Your task to perform on an android device: Toggle the flashlight Image 0: 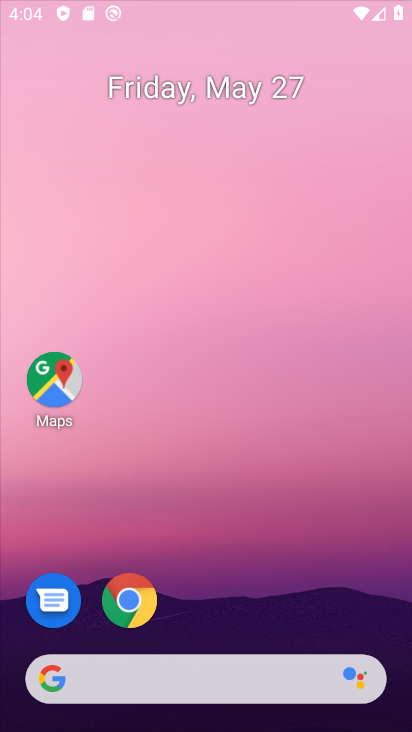
Step 0: drag from (224, 713) to (321, 111)
Your task to perform on an android device: Toggle the flashlight Image 1: 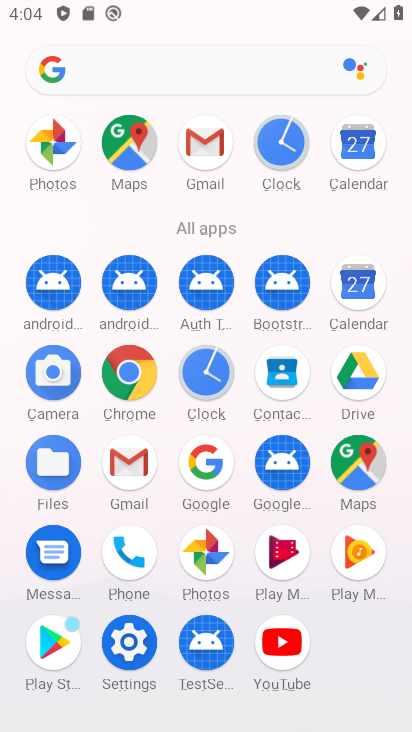
Step 1: click (129, 641)
Your task to perform on an android device: Toggle the flashlight Image 2: 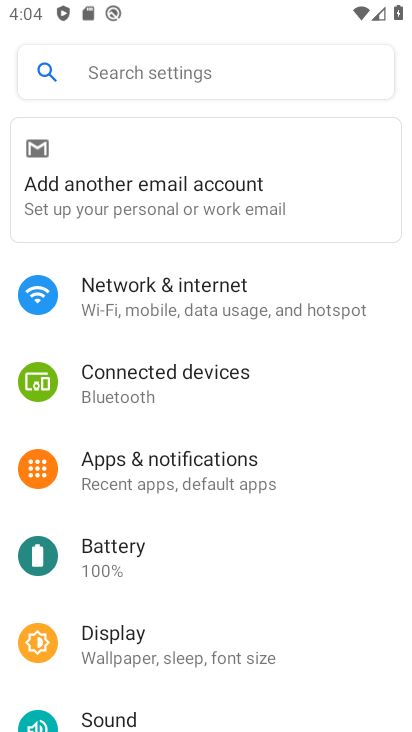
Step 2: click (145, 81)
Your task to perform on an android device: Toggle the flashlight Image 3: 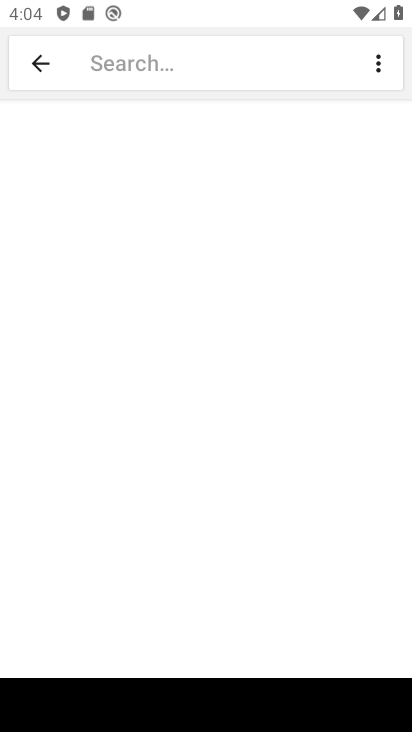
Step 3: drag from (384, 686) to (374, 564)
Your task to perform on an android device: Toggle the flashlight Image 4: 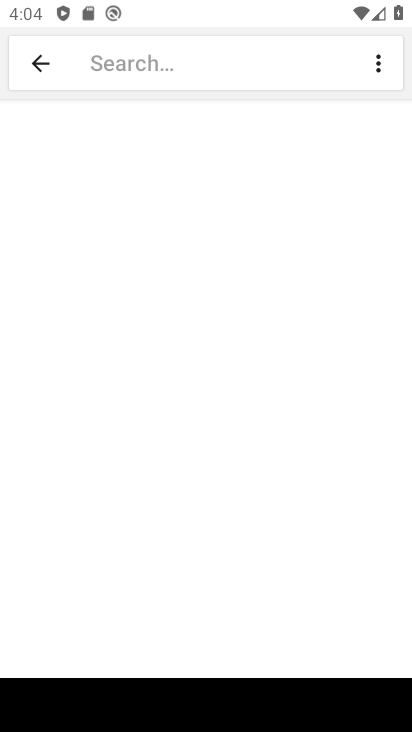
Step 4: drag from (390, 707) to (378, 606)
Your task to perform on an android device: Toggle the flashlight Image 5: 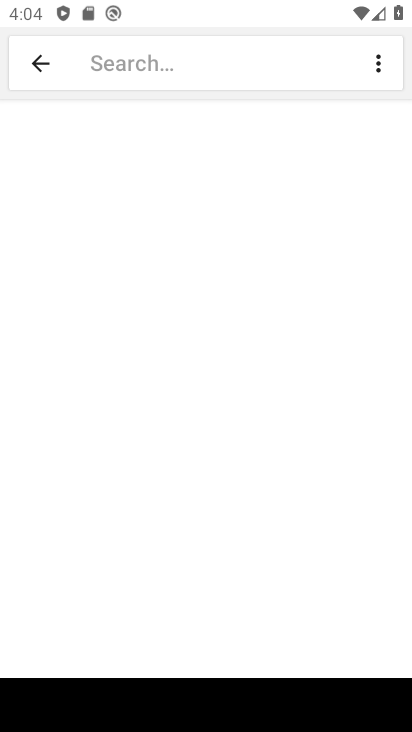
Step 5: drag from (382, 704) to (370, 664)
Your task to perform on an android device: Toggle the flashlight Image 6: 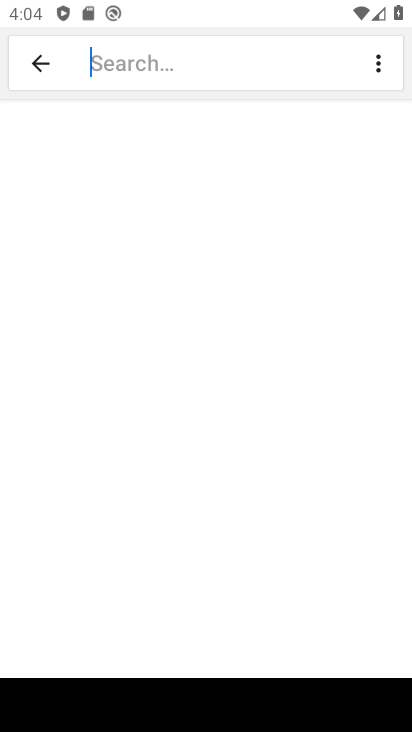
Step 6: click (385, 706)
Your task to perform on an android device: Toggle the flashlight Image 7: 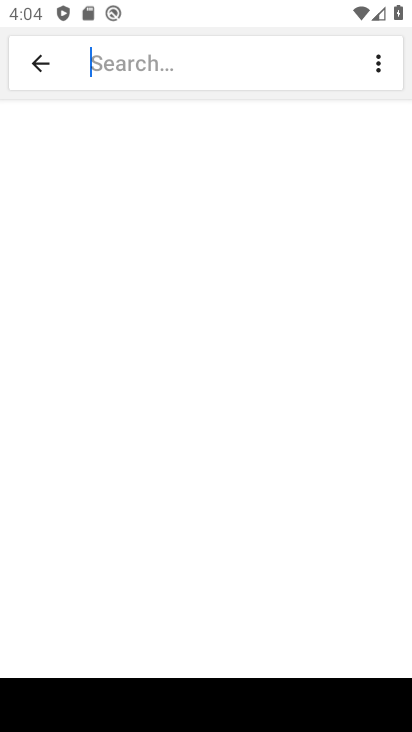
Step 7: click (131, 61)
Your task to perform on an android device: Toggle the flashlight Image 8: 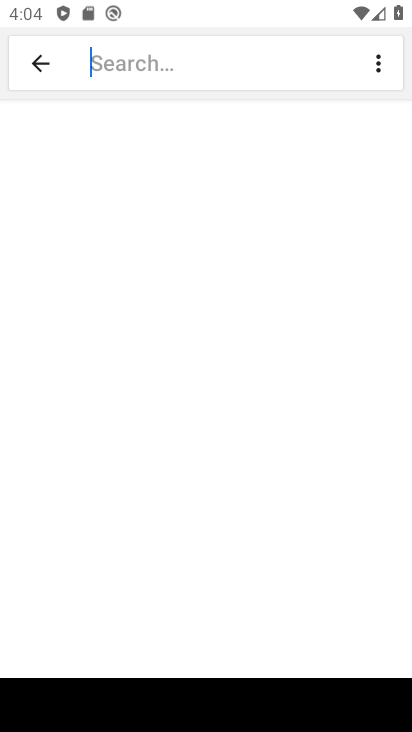
Step 8: click (123, 64)
Your task to perform on an android device: Toggle the flashlight Image 9: 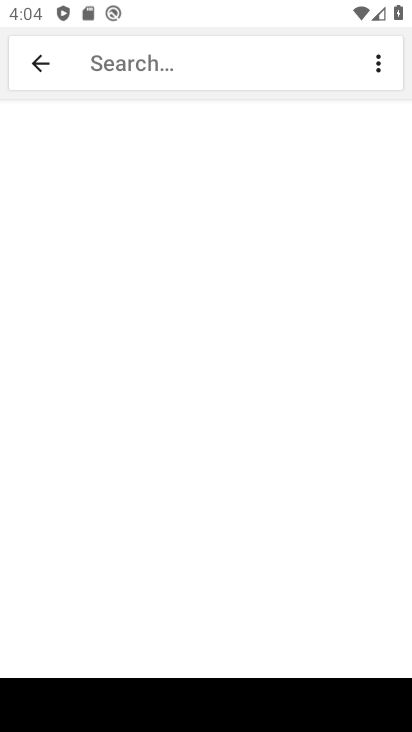
Step 9: click (123, 64)
Your task to perform on an android device: Toggle the flashlight Image 10: 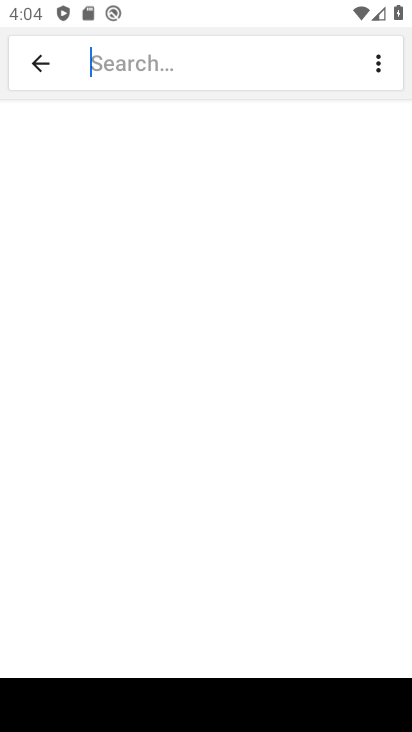
Step 10: drag from (391, 711) to (363, 599)
Your task to perform on an android device: Toggle the flashlight Image 11: 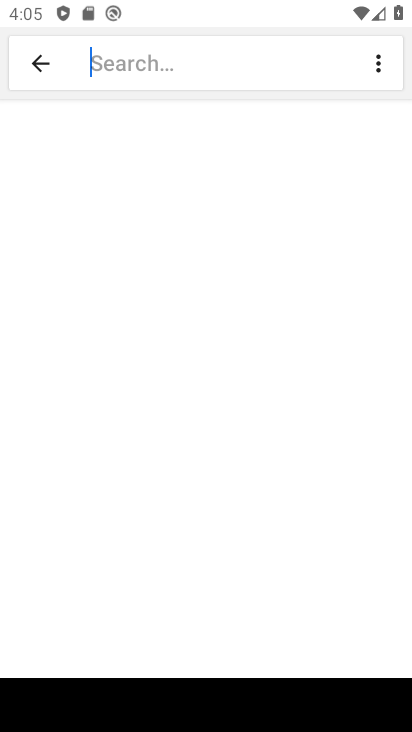
Step 11: drag from (390, 707) to (261, 458)
Your task to perform on an android device: Toggle the flashlight Image 12: 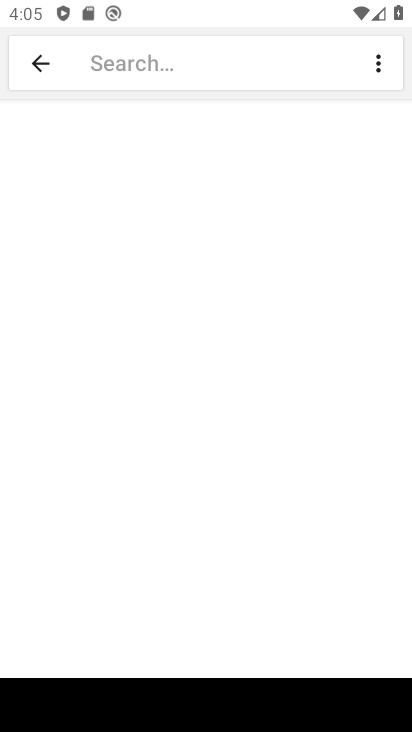
Step 12: drag from (386, 710) to (372, 579)
Your task to perform on an android device: Toggle the flashlight Image 13: 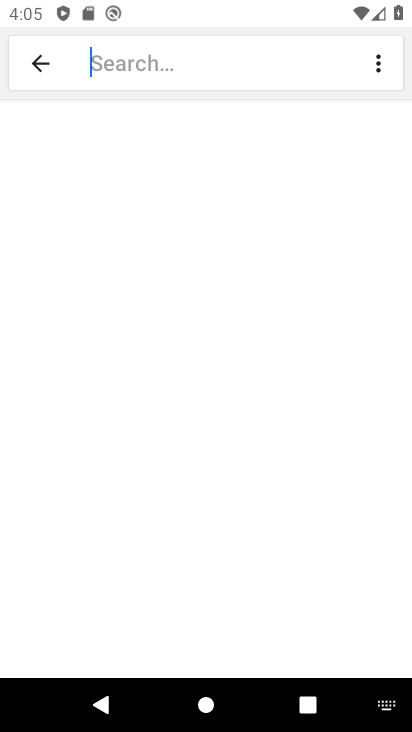
Step 13: click (348, 605)
Your task to perform on an android device: Toggle the flashlight Image 14: 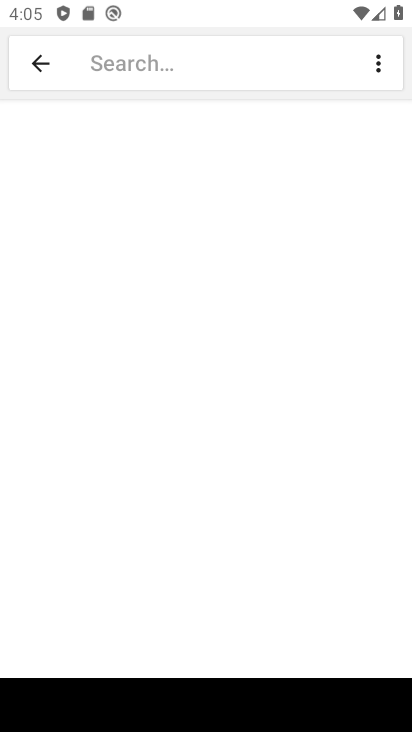
Step 14: click (373, 684)
Your task to perform on an android device: Toggle the flashlight Image 15: 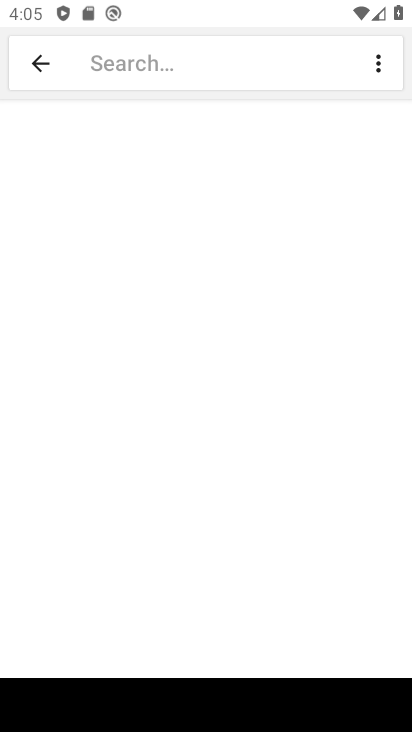
Step 15: click (378, 702)
Your task to perform on an android device: Toggle the flashlight Image 16: 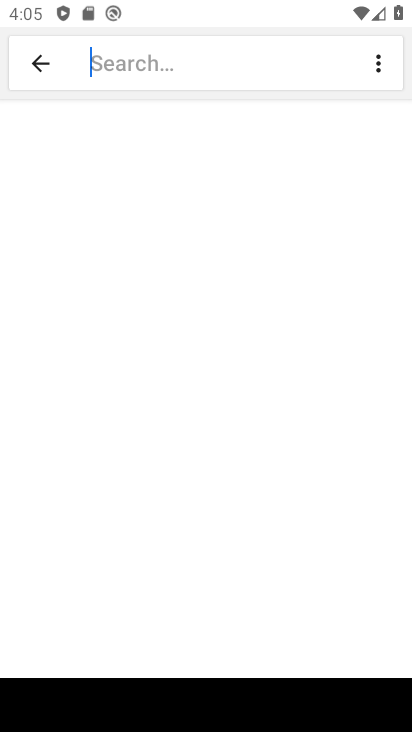
Step 16: drag from (395, 722) to (374, 660)
Your task to perform on an android device: Toggle the flashlight Image 17: 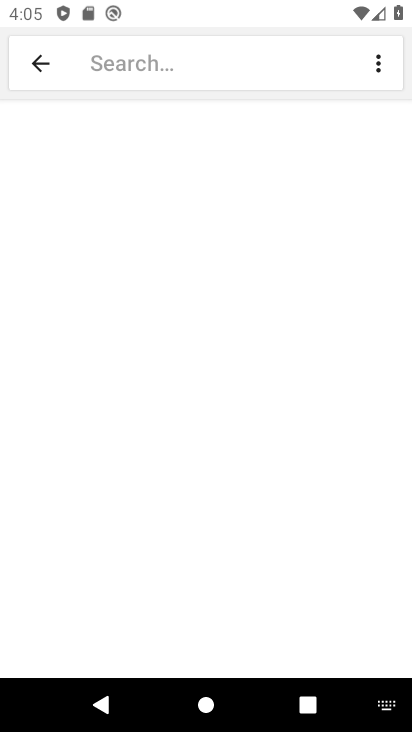
Step 17: click (390, 705)
Your task to perform on an android device: Toggle the flashlight Image 18: 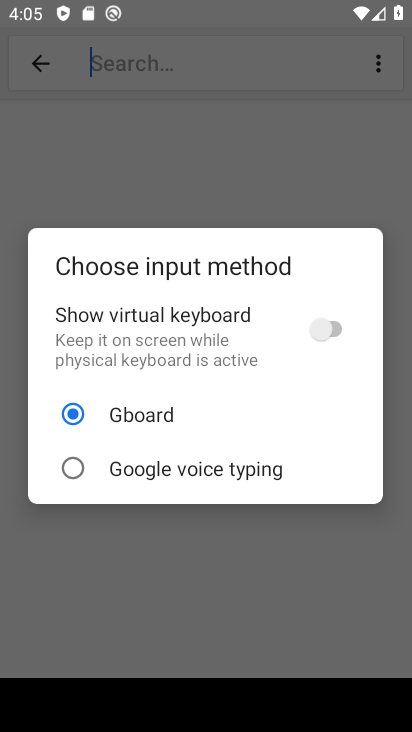
Step 18: click (323, 332)
Your task to perform on an android device: Toggle the flashlight Image 19: 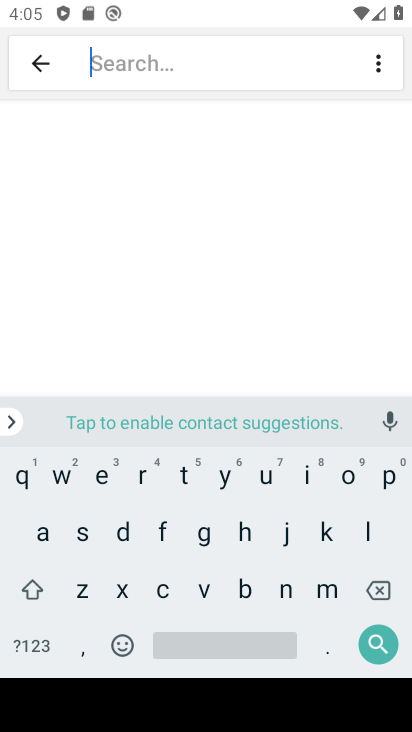
Step 19: click (128, 60)
Your task to perform on an android device: Toggle the flashlight Image 20: 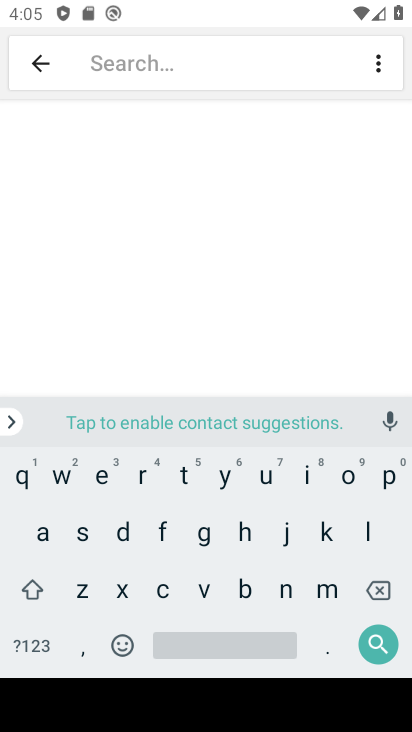
Step 20: click (160, 533)
Your task to perform on an android device: Toggle the flashlight Image 21: 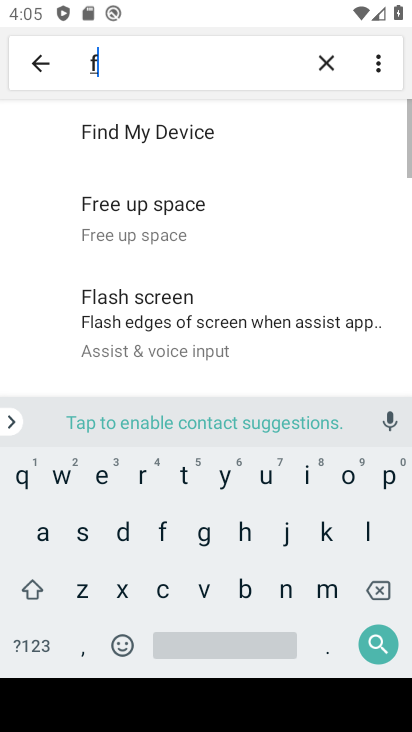
Step 21: click (368, 534)
Your task to perform on an android device: Toggle the flashlight Image 22: 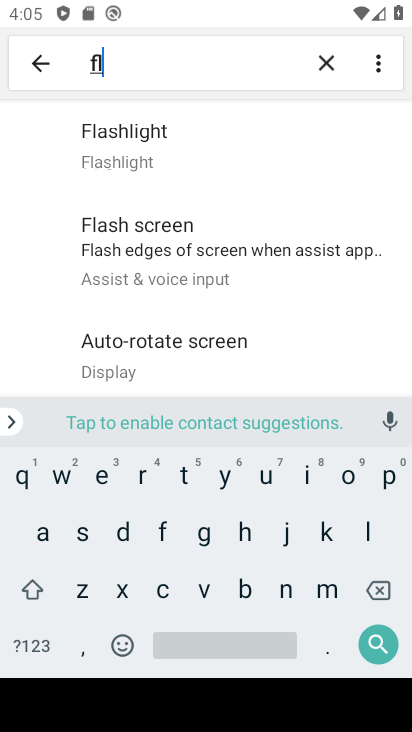
Step 22: task complete